Your task to perform on an android device: When is my next appointment? Image 0: 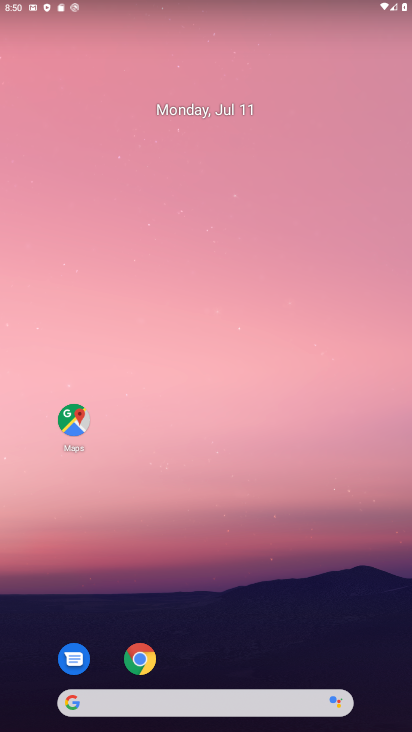
Step 0: drag from (331, 628) to (349, 78)
Your task to perform on an android device: When is my next appointment? Image 1: 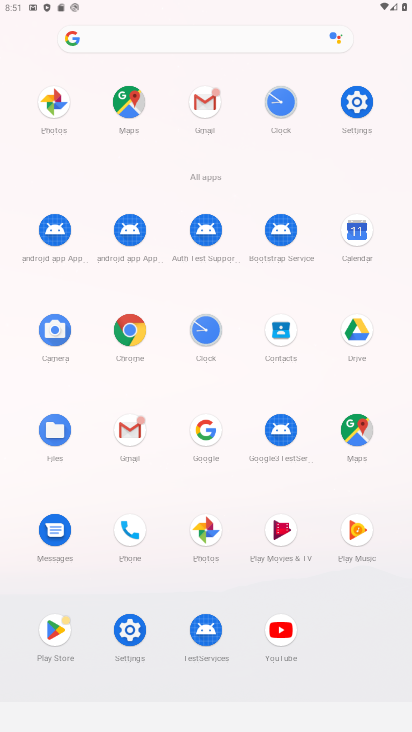
Step 1: click (362, 240)
Your task to perform on an android device: When is my next appointment? Image 2: 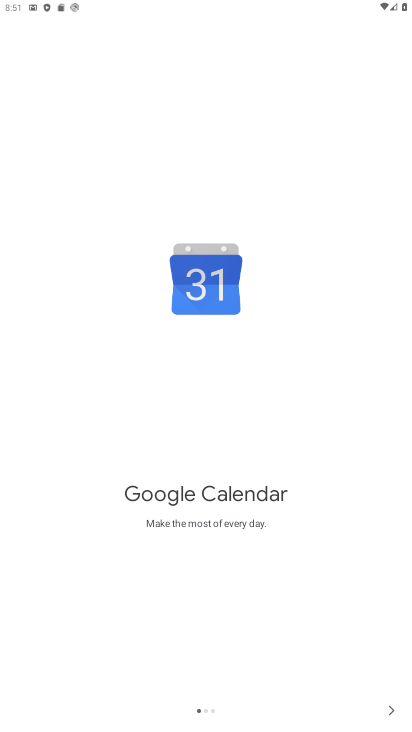
Step 2: click (388, 710)
Your task to perform on an android device: When is my next appointment? Image 3: 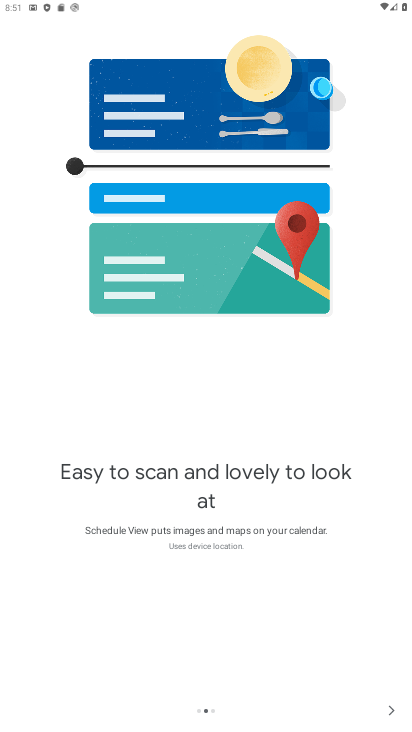
Step 3: click (388, 710)
Your task to perform on an android device: When is my next appointment? Image 4: 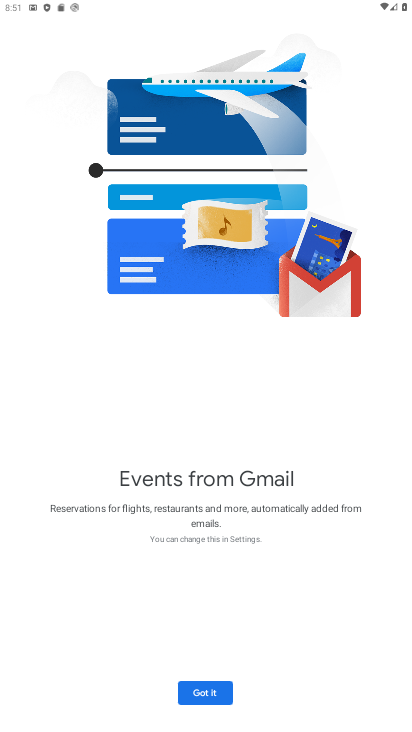
Step 4: click (209, 698)
Your task to perform on an android device: When is my next appointment? Image 5: 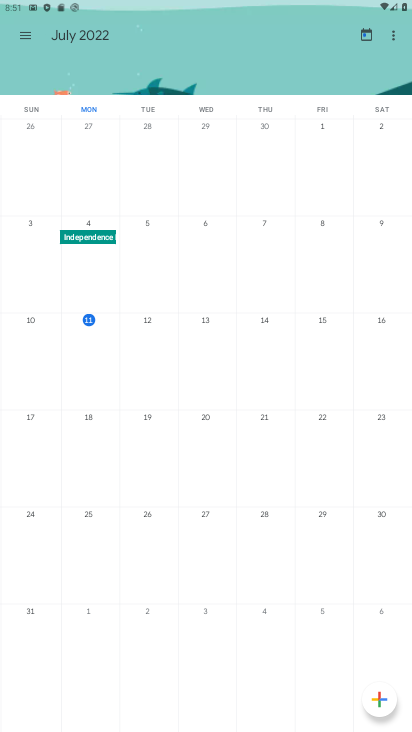
Step 5: task complete